Your task to perform on an android device: turn on notifications settings in the gmail app Image 0: 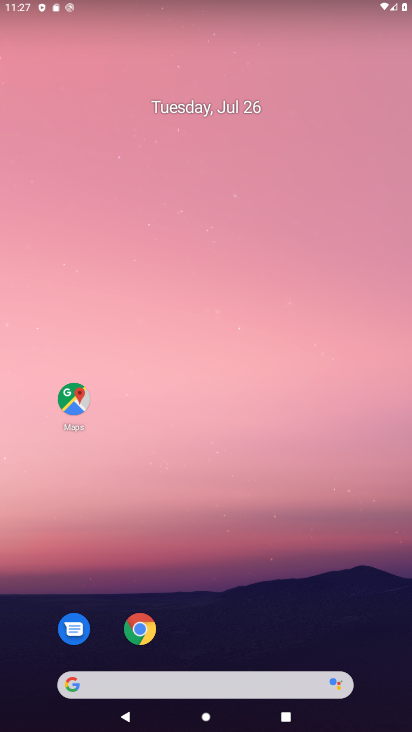
Step 0: drag from (232, 728) to (234, 54)
Your task to perform on an android device: turn on notifications settings in the gmail app Image 1: 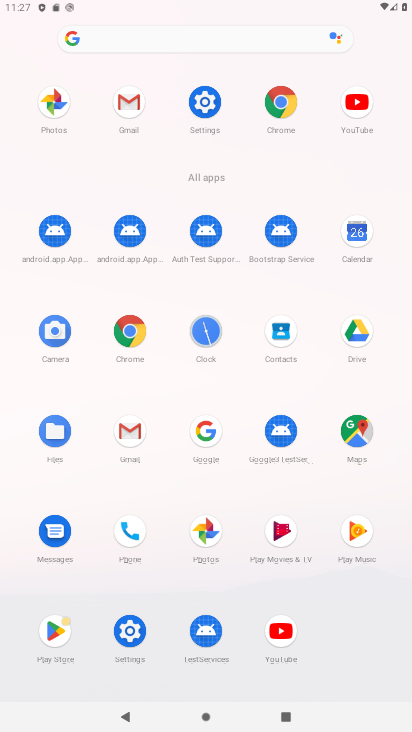
Step 1: click (126, 427)
Your task to perform on an android device: turn on notifications settings in the gmail app Image 2: 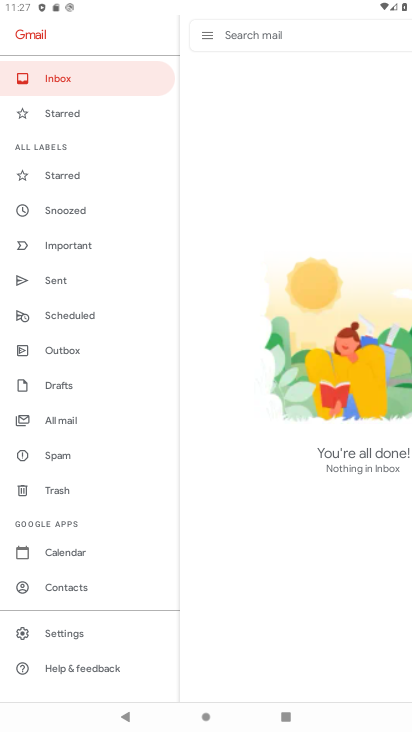
Step 2: click (71, 630)
Your task to perform on an android device: turn on notifications settings in the gmail app Image 3: 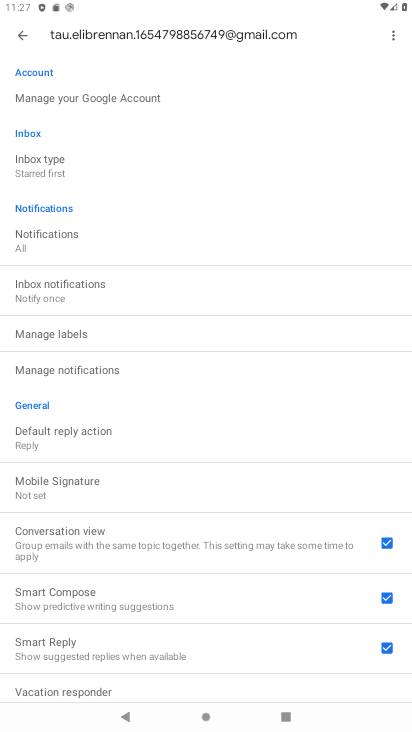
Step 3: task complete